Your task to perform on an android device: Show me productivity apps on the Play Store Image 0: 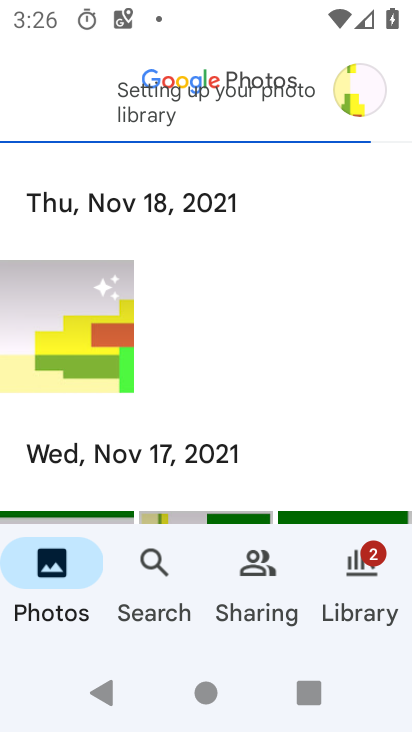
Step 0: press home button
Your task to perform on an android device: Show me productivity apps on the Play Store Image 1: 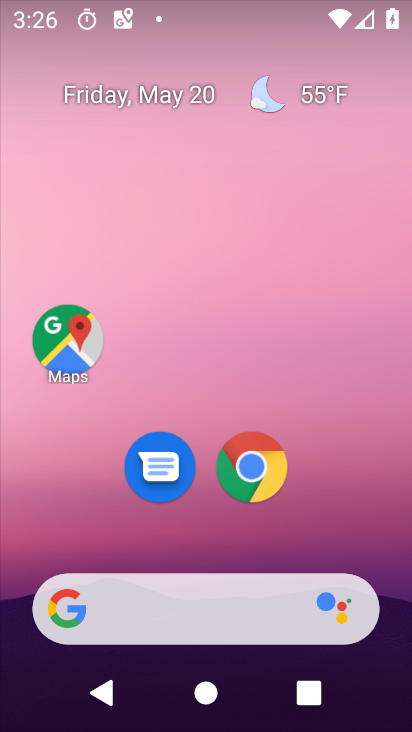
Step 1: drag from (215, 481) to (229, 52)
Your task to perform on an android device: Show me productivity apps on the Play Store Image 2: 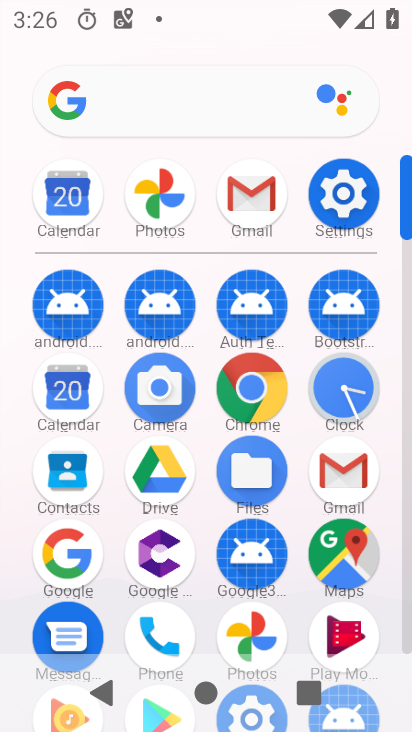
Step 2: drag from (199, 538) to (210, 292)
Your task to perform on an android device: Show me productivity apps on the Play Store Image 3: 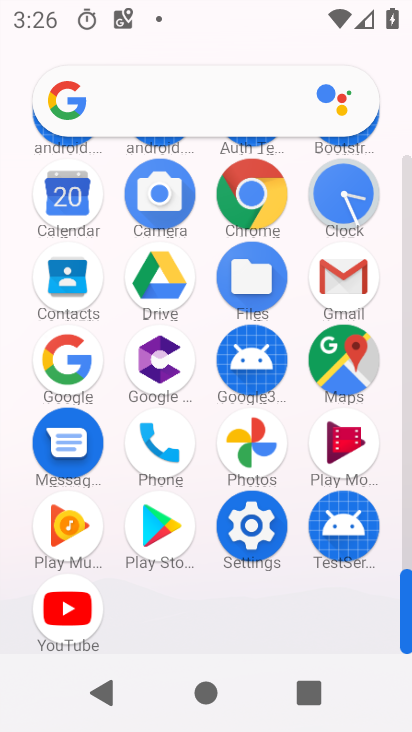
Step 3: click (158, 534)
Your task to perform on an android device: Show me productivity apps on the Play Store Image 4: 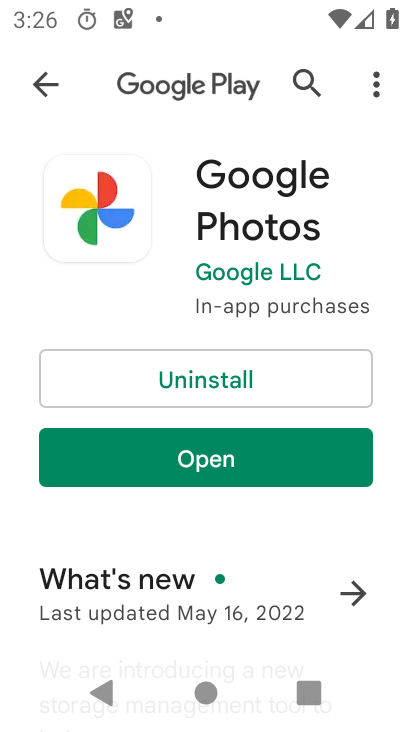
Step 4: click (23, 82)
Your task to perform on an android device: Show me productivity apps on the Play Store Image 5: 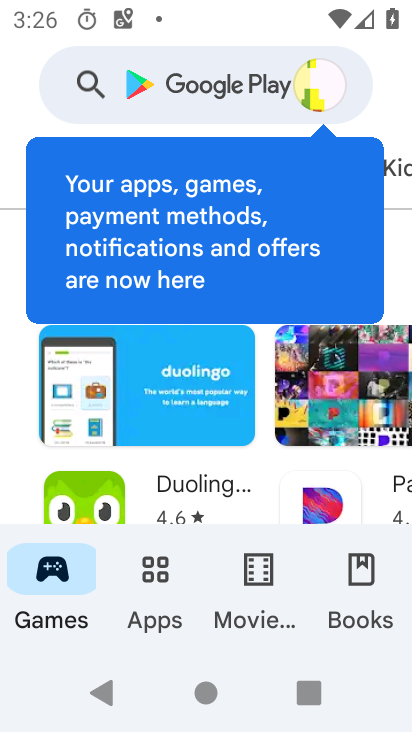
Step 5: click (155, 603)
Your task to perform on an android device: Show me productivity apps on the Play Store Image 6: 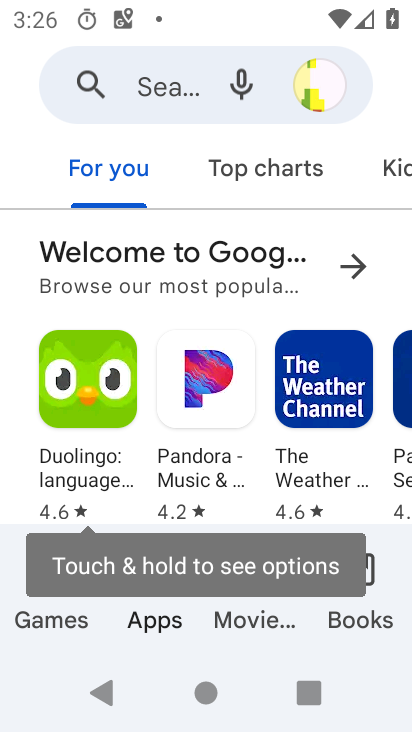
Step 6: drag from (371, 169) to (51, 167)
Your task to perform on an android device: Show me productivity apps on the Play Store Image 7: 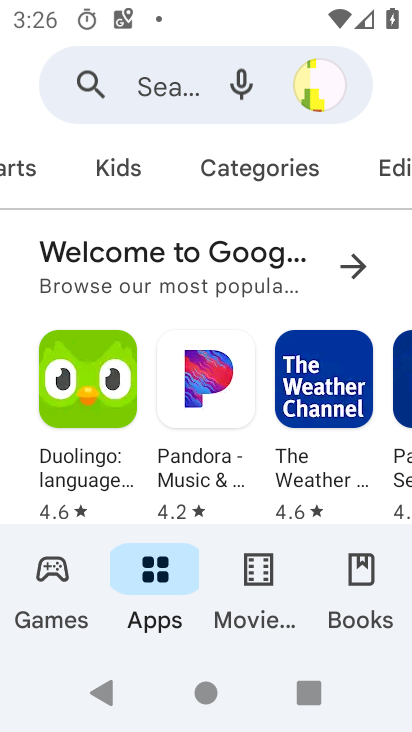
Step 7: click (277, 172)
Your task to perform on an android device: Show me productivity apps on the Play Store Image 8: 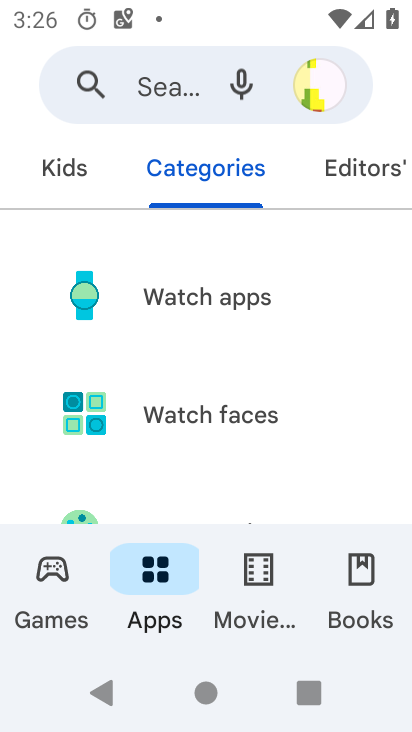
Step 8: drag from (217, 464) to (208, 211)
Your task to perform on an android device: Show me productivity apps on the Play Store Image 9: 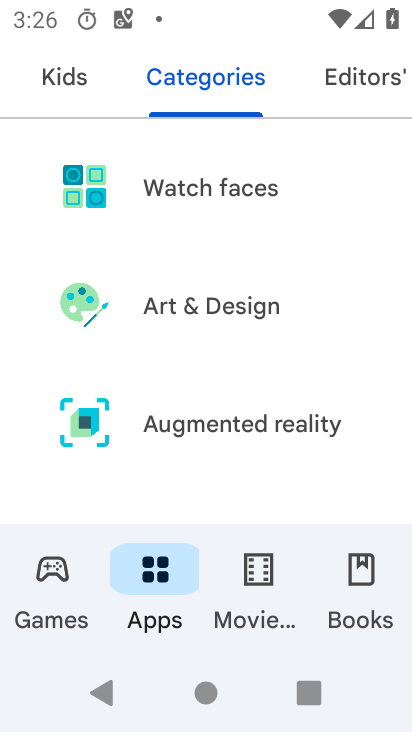
Step 9: drag from (209, 440) to (175, 151)
Your task to perform on an android device: Show me productivity apps on the Play Store Image 10: 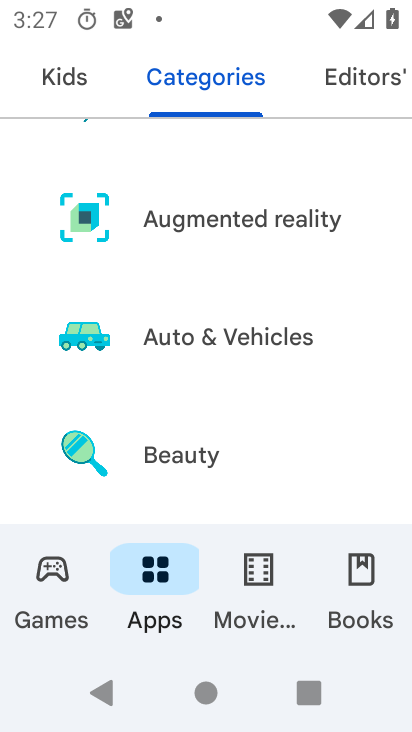
Step 10: drag from (145, 422) to (147, 193)
Your task to perform on an android device: Show me productivity apps on the Play Store Image 11: 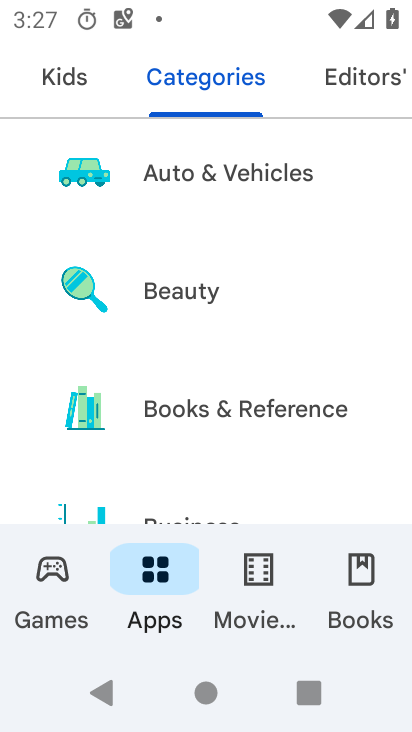
Step 11: drag from (184, 444) to (174, 208)
Your task to perform on an android device: Show me productivity apps on the Play Store Image 12: 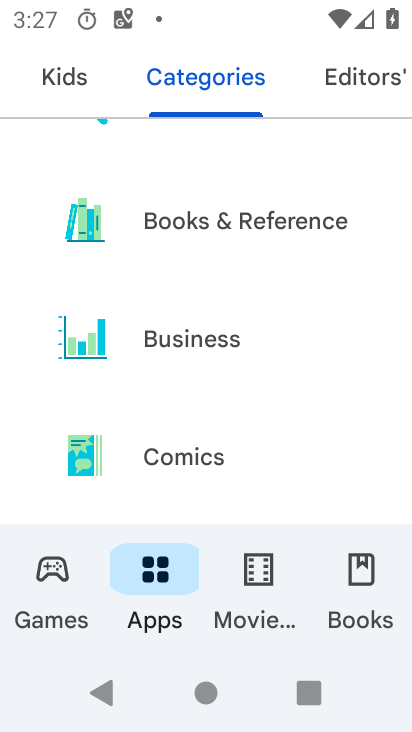
Step 12: drag from (194, 418) to (209, 199)
Your task to perform on an android device: Show me productivity apps on the Play Store Image 13: 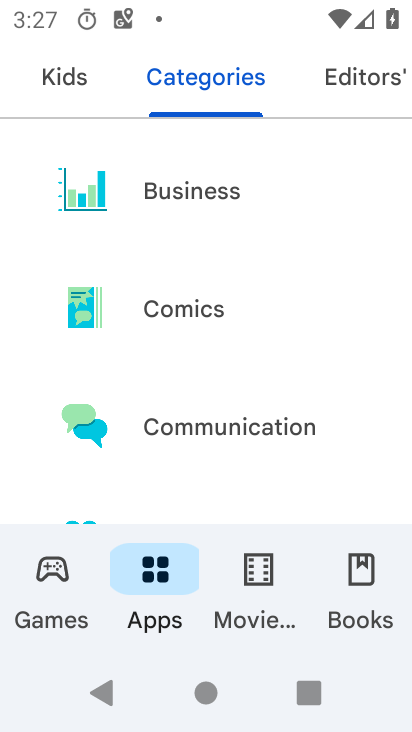
Step 13: drag from (214, 450) to (213, 257)
Your task to perform on an android device: Show me productivity apps on the Play Store Image 14: 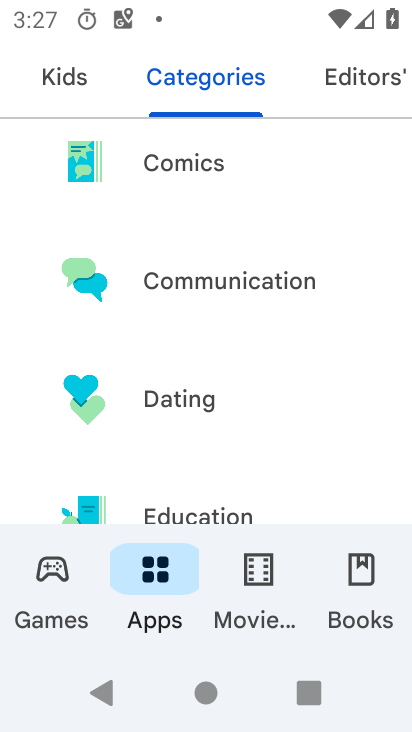
Step 14: drag from (191, 451) to (203, 246)
Your task to perform on an android device: Show me productivity apps on the Play Store Image 15: 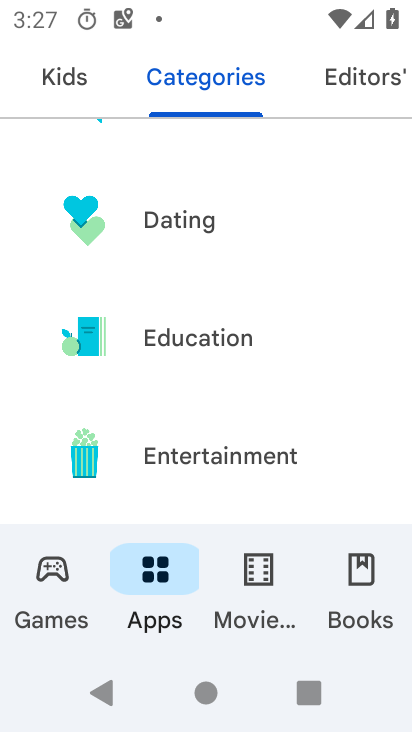
Step 15: drag from (225, 457) to (252, 228)
Your task to perform on an android device: Show me productivity apps on the Play Store Image 16: 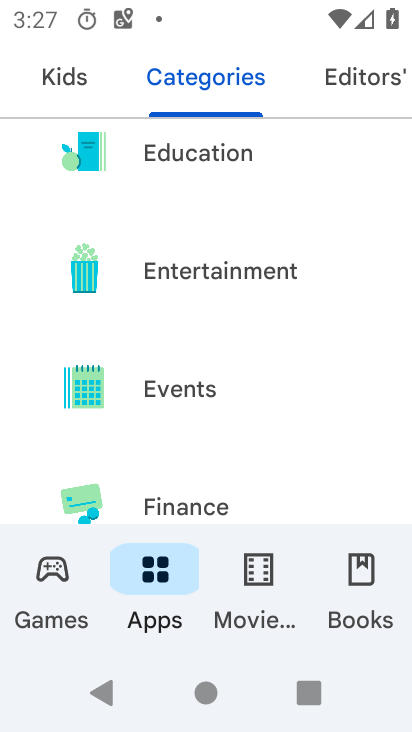
Step 16: drag from (152, 502) to (191, 208)
Your task to perform on an android device: Show me productivity apps on the Play Store Image 17: 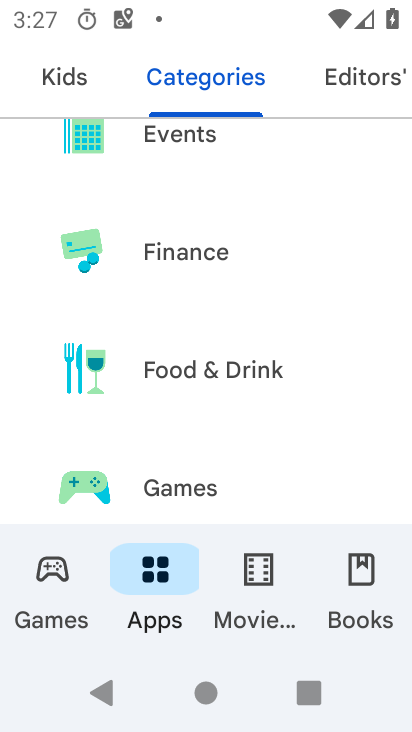
Step 17: drag from (235, 459) to (249, 188)
Your task to perform on an android device: Show me productivity apps on the Play Store Image 18: 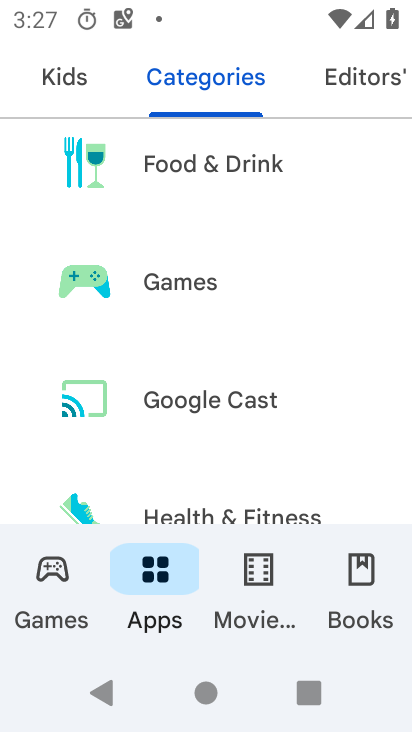
Step 18: drag from (226, 459) to (227, 241)
Your task to perform on an android device: Show me productivity apps on the Play Store Image 19: 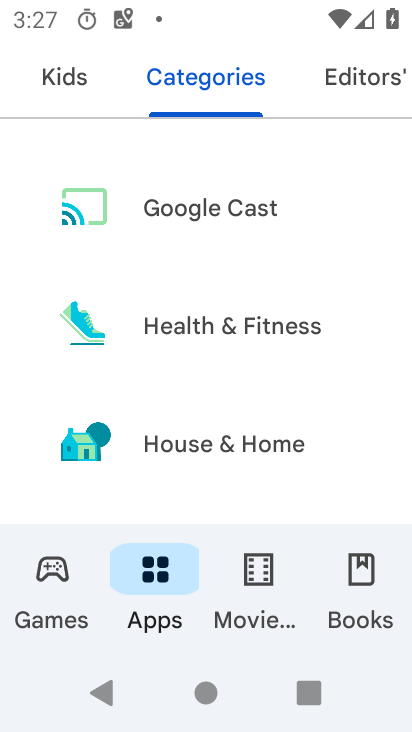
Step 19: drag from (184, 473) to (214, 226)
Your task to perform on an android device: Show me productivity apps on the Play Store Image 20: 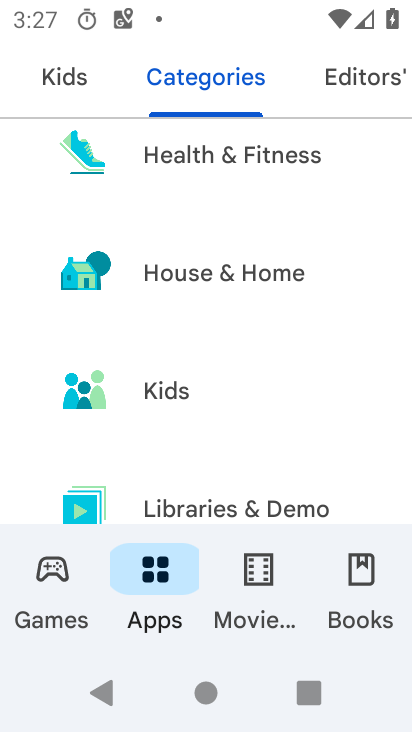
Step 20: drag from (231, 475) to (200, 162)
Your task to perform on an android device: Show me productivity apps on the Play Store Image 21: 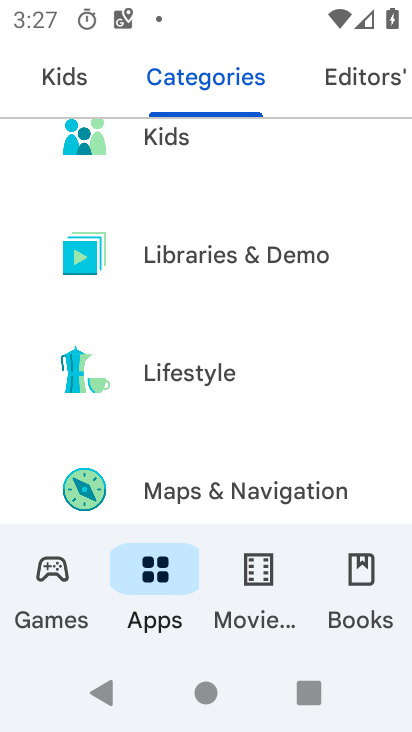
Step 21: drag from (187, 480) to (185, 192)
Your task to perform on an android device: Show me productivity apps on the Play Store Image 22: 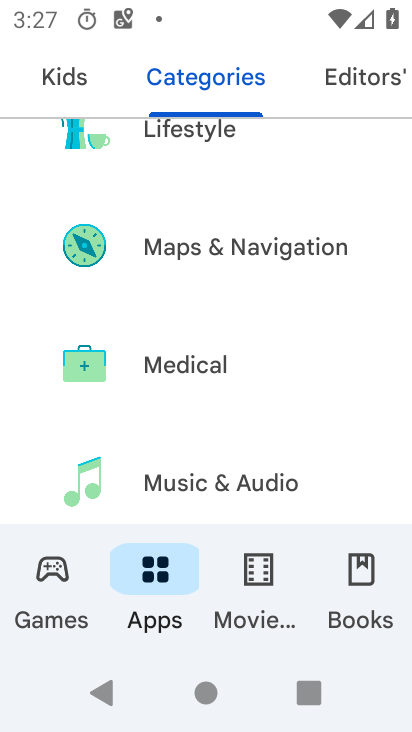
Step 22: drag from (181, 473) to (172, 255)
Your task to perform on an android device: Show me productivity apps on the Play Store Image 23: 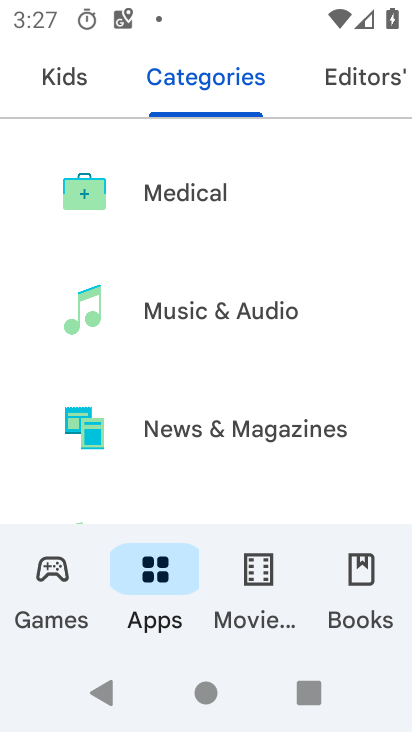
Step 23: drag from (169, 475) to (194, 310)
Your task to perform on an android device: Show me productivity apps on the Play Store Image 24: 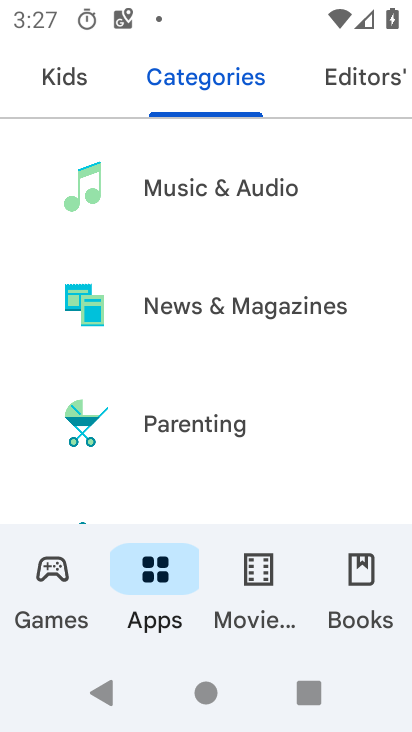
Step 24: drag from (204, 459) to (215, 272)
Your task to perform on an android device: Show me productivity apps on the Play Store Image 25: 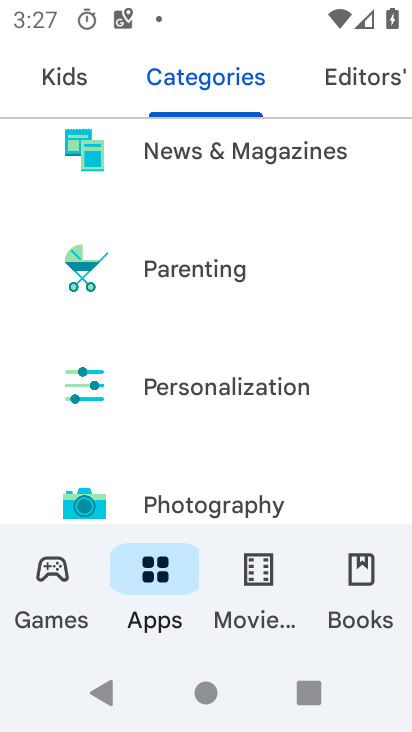
Step 25: drag from (227, 468) to (217, 180)
Your task to perform on an android device: Show me productivity apps on the Play Store Image 26: 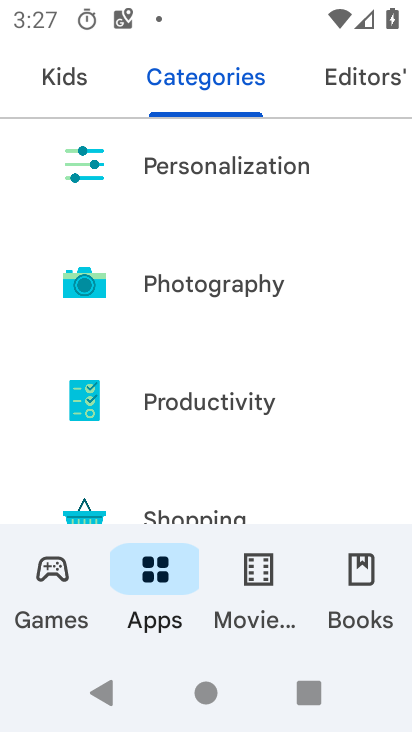
Step 26: click (215, 394)
Your task to perform on an android device: Show me productivity apps on the Play Store Image 27: 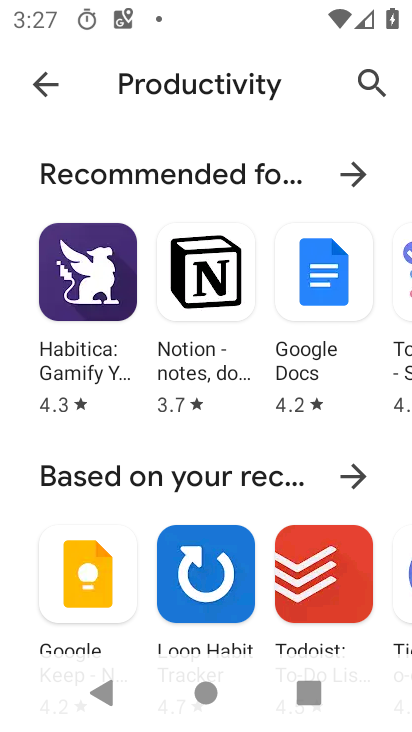
Step 27: task complete